Your task to perform on an android device: toggle sleep mode Image 0: 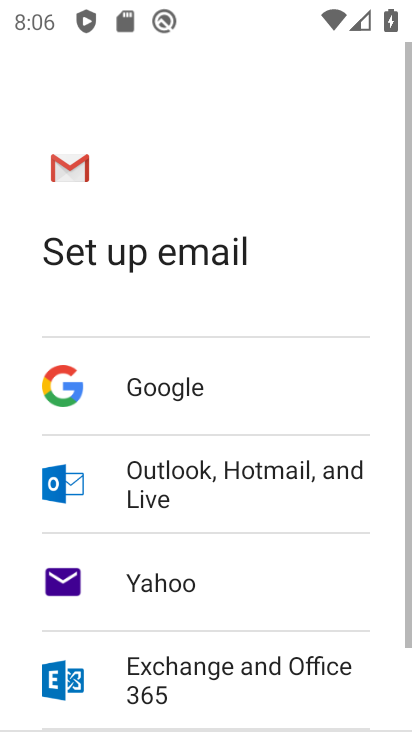
Step 0: press home button
Your task to perform on an android device: toggle sleep mode Image 1: 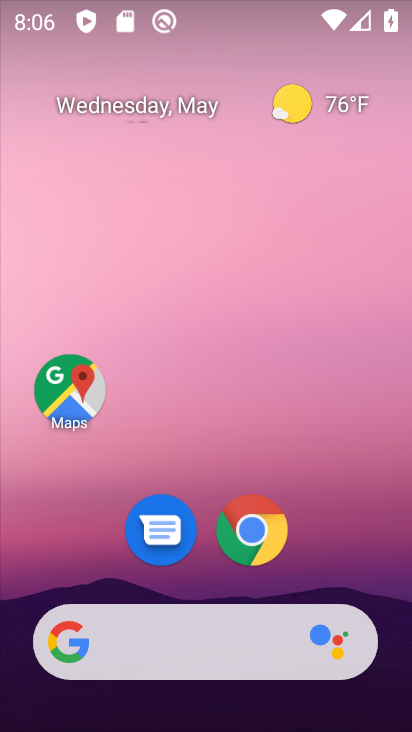
Step 1: drag from (355, 552) to (323, 128)
Your task to perform on an android device: toggle sleep mode Image 2: 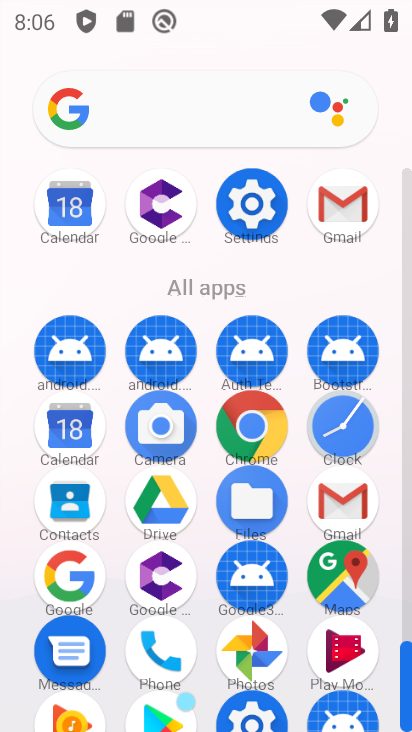
Step 2: click (252, 213)
Your task to perform on an android device: toggle sleep mode Image 3: 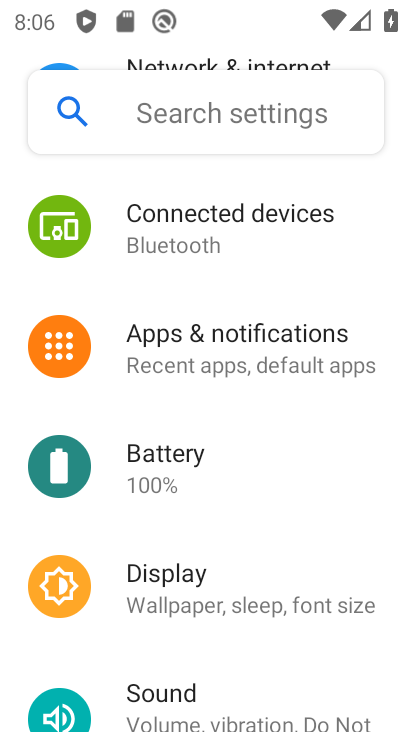
Step 3: click (207, 123)
Your task to perform on an android device: toggle sleep mode Image 4: 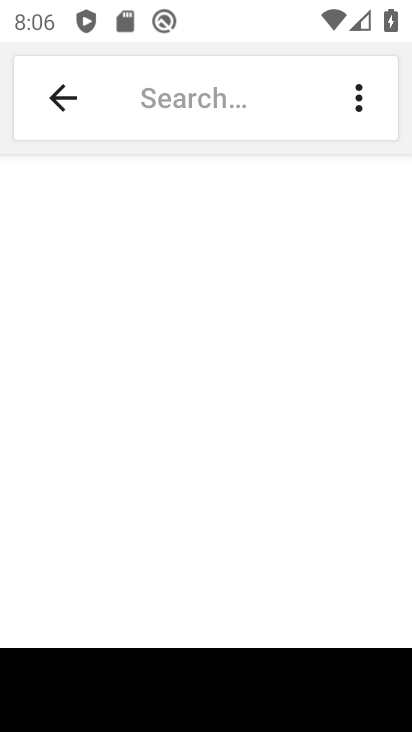
Step 4: type "sleep mode"
Your task to perform on an android device: toggle sleep mode Image 5: 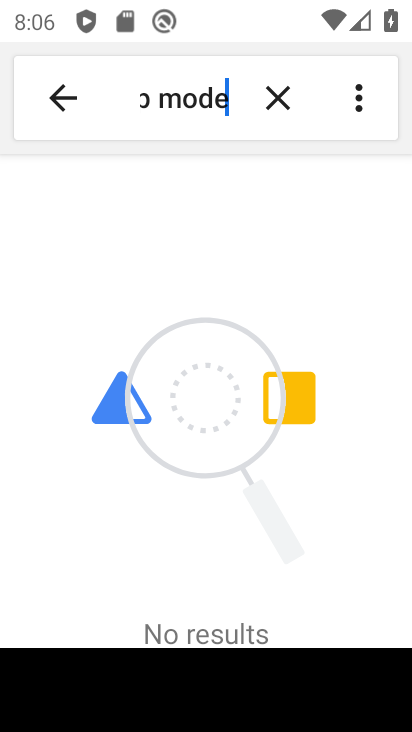
Step 5: task complete